Your task to perform on an android device: Open calendar and show me the second week of next month Image 0: 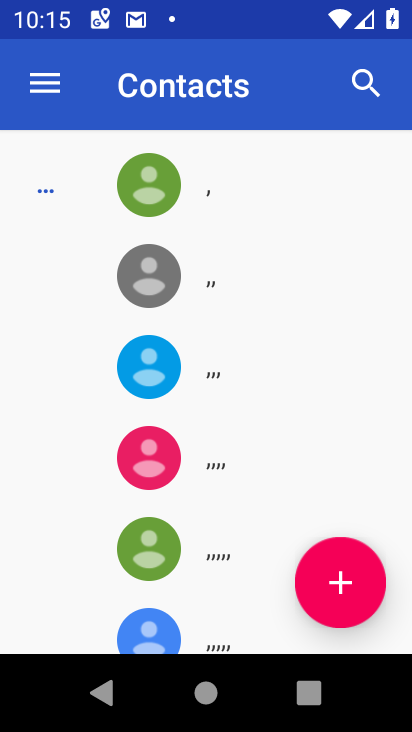
Step 0: press back button
Your task to perform on an android device: Open calendar and show me the second week of next month Image 1: 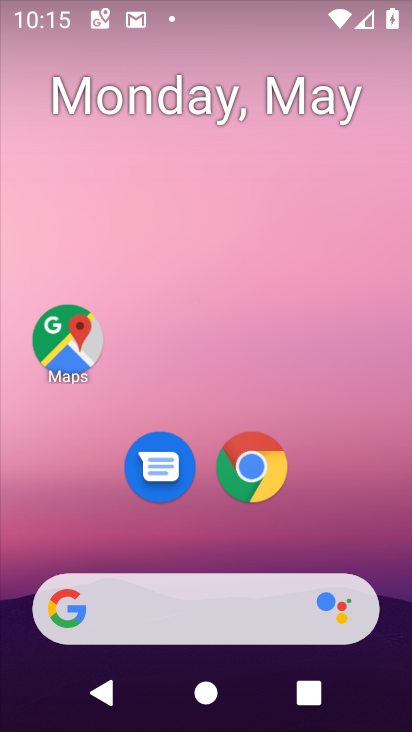
Step 1: drag from (382, 576) to (368, 233)
Your task to perform on an android device: Open calendar and show me the second week of next month Image 2: 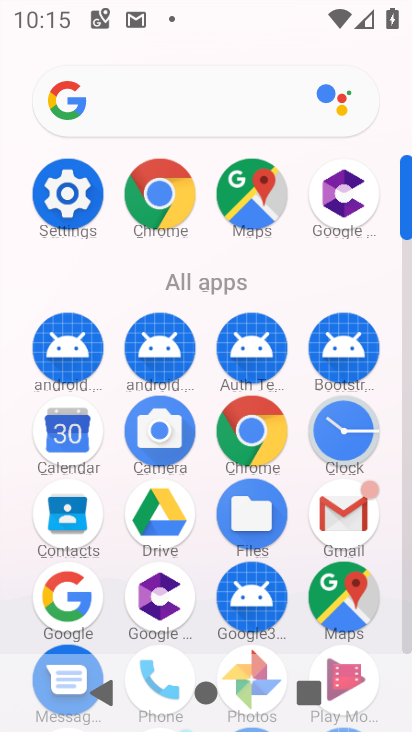
Step 2: click (59, 443)
Your task to perform on an android device: Open calendar and show me the second week of next month Image 3: 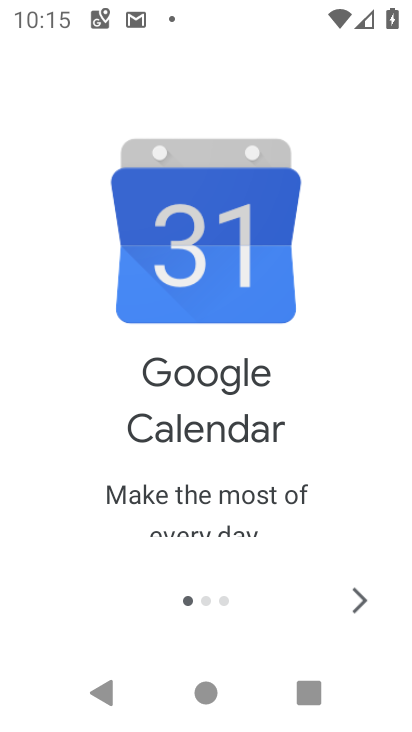
Step 3: click (351, 600)
Your task to perform on an android device: Open calendar and show me the second week of next month Image 4: 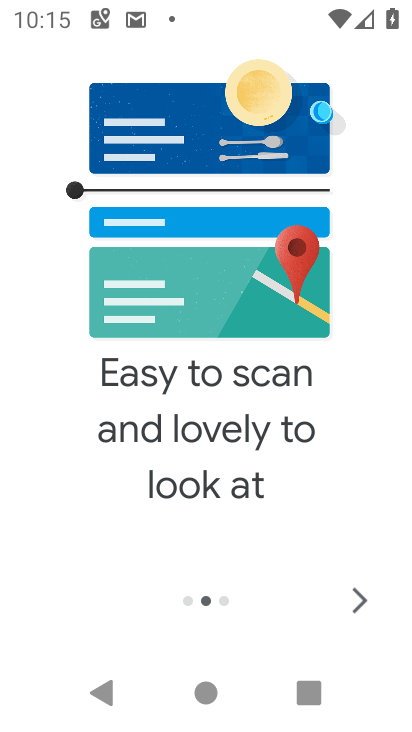
Step 4: click (354, 599)
Your task to perform on an android device: Open calendar and show me the second week of next month Image 5: 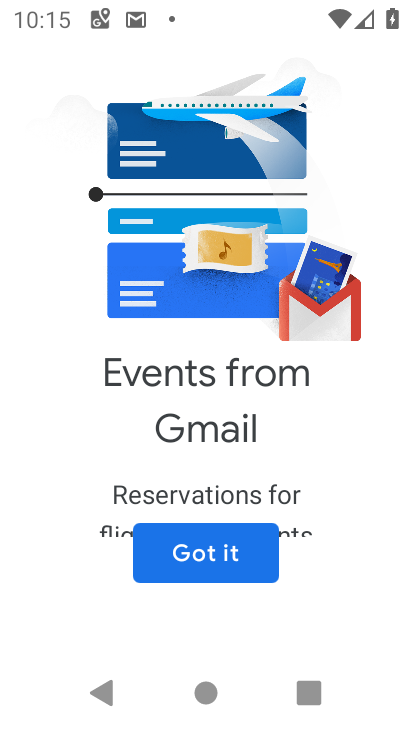
Step 5: click (214, 557)
Your task to perform on an android device: Open calendar and show me the second week of next month Image 6: 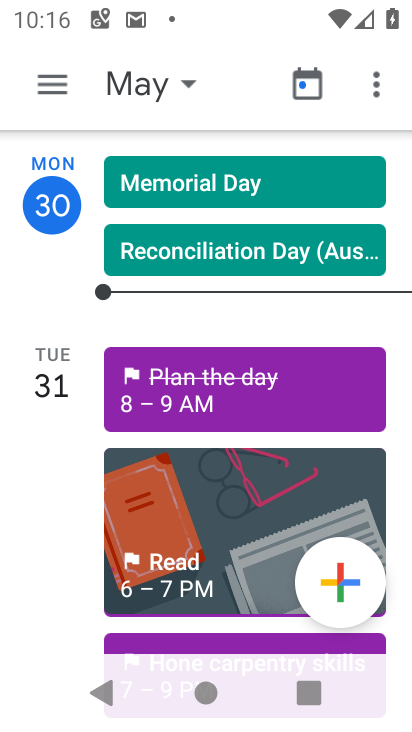
Step 6: click (184, 80)
Your task to perform on an android device: Open calendar and show me the second week of next month Image 7: 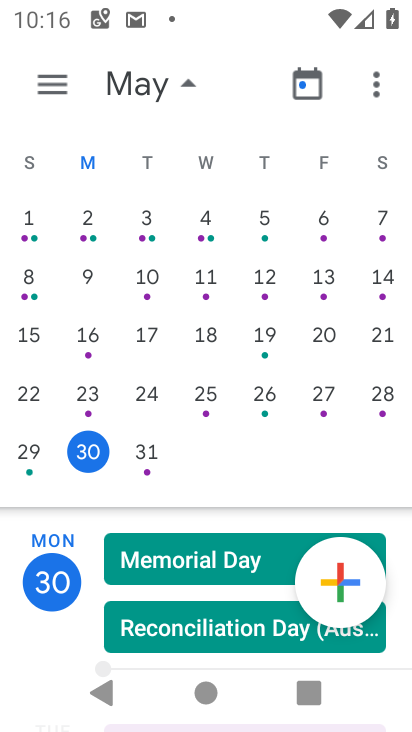
Step 7: press back button
Your task to perform on an android device: Open calendar and show me the second week of next month Image 8: 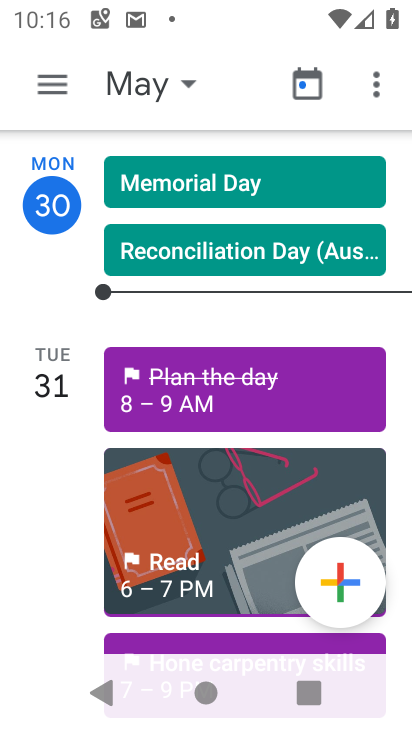
Step 8: press home button
Your task to perform on an android device: Open calendar and show me the second week of next month Image 9: 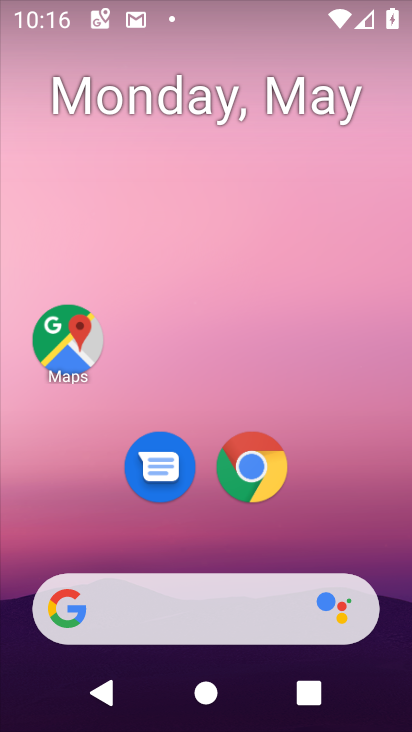
Step 9: drag from (402, 707) to (345, 195)
Your task to perform on an android device: Open calendar and show me the second week of next month Image 10: 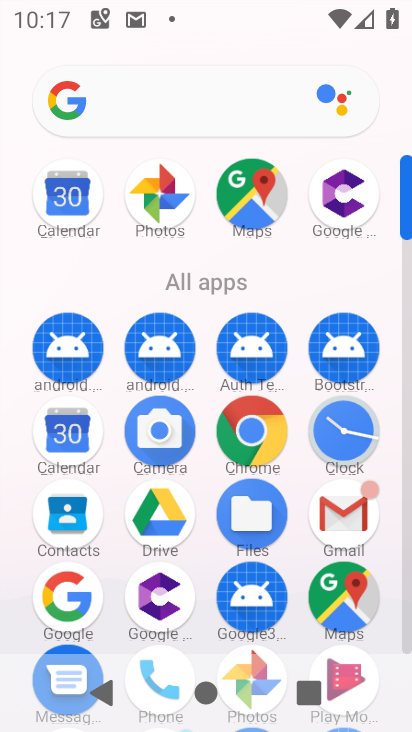
Step 10: click (86, 453)
Your task to perform on an android device: Open calendar and show me the second week of next month Image 11: 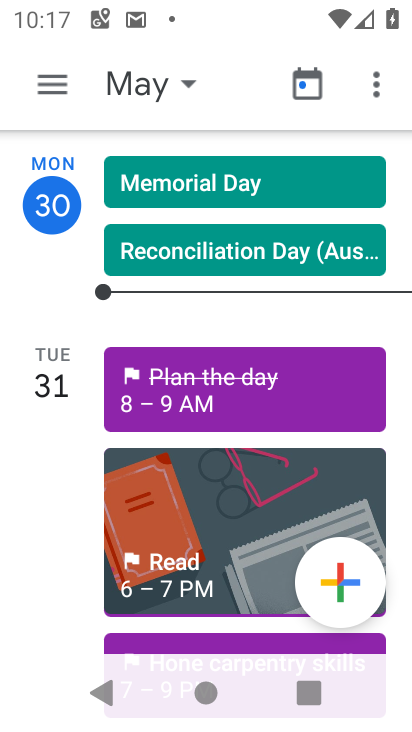
Step 11: click (377, 81)
Your task to perform on an android device: Open calendar and show me the second week of next month Image 12: 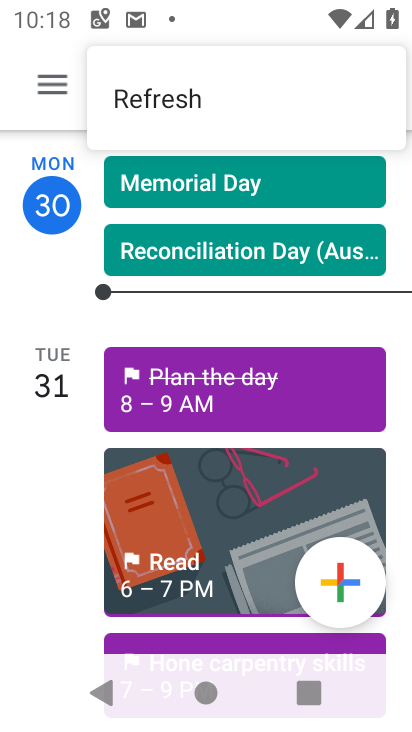
Step 12: click (36, 548)
Your task to perform on an android device: Open calendar and show me the second week of next month Image 13: 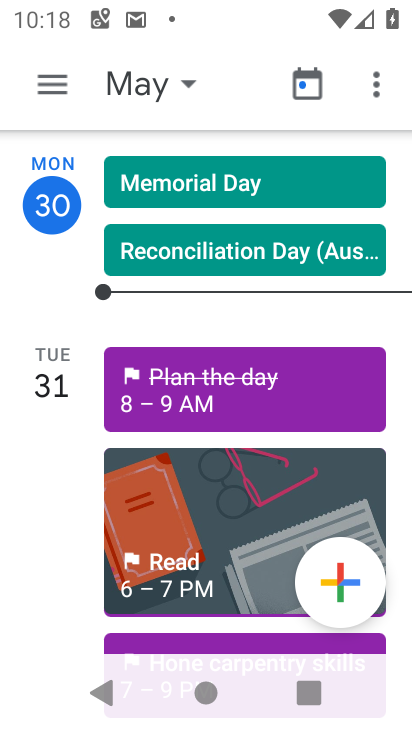
Step 13: click (190, 80)
Your task to perform on an android device: Open calendar and show me the second week of next month Image 14: 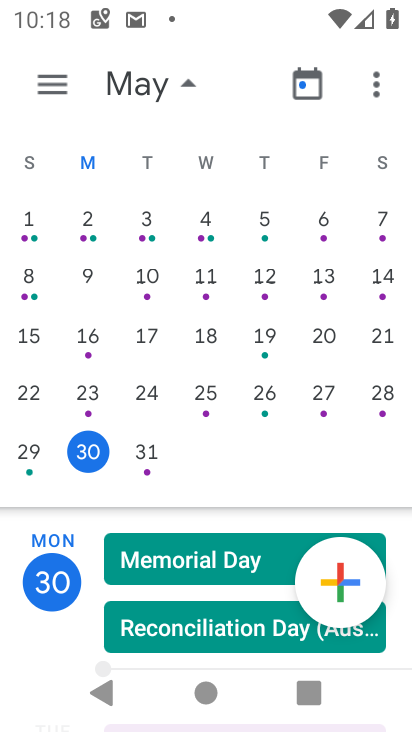
Step 14: drag from (393, 311) to (270, 333)
Your task to perform on an android device: Open calendar and show me the second week of next month Image 15: 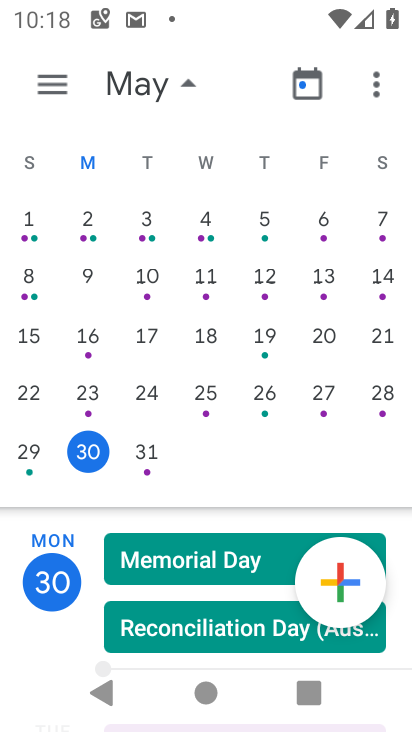
Step 15: click (266, 309)
Your task to perform on an android device: Open calendar and show me the second week of next month Image 16: 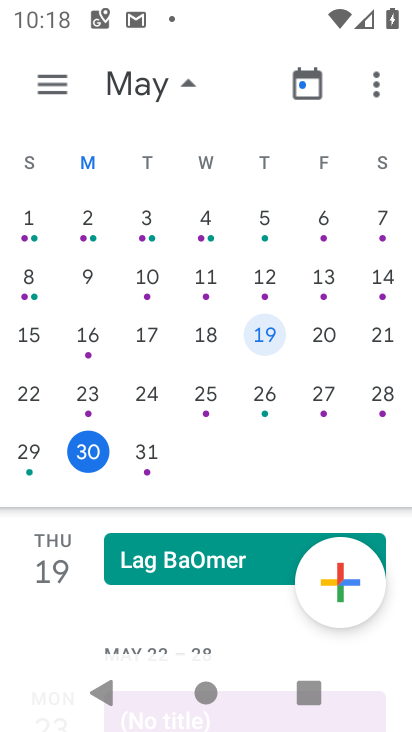
Step 16: drag from (406, 297) to (171, 234)
Your task to perform on an android device: Open calendar and show me the second week of next month Image 17: 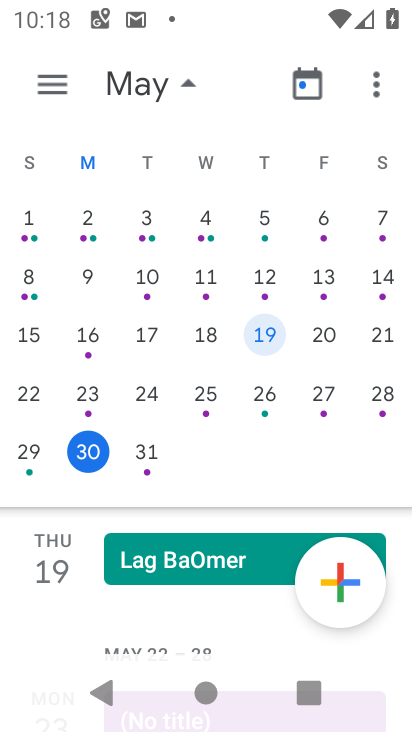
Step 17: drag from (396, 295) to (123, 273)
Your task to perform on an android device: Open calendar and show me the second week of next month Image 18: 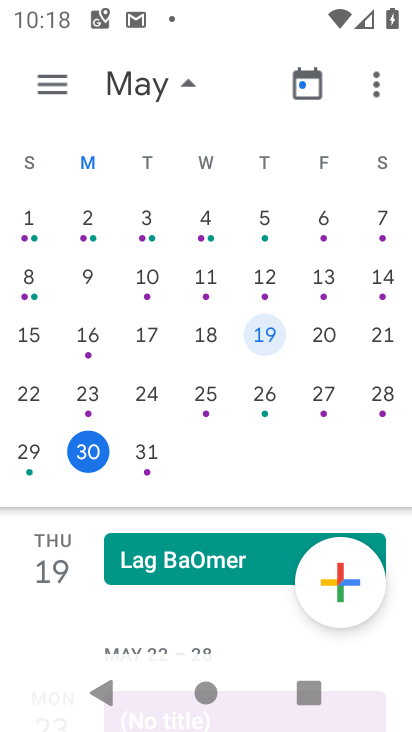
Step 18: click (111, 268)
Your task to perform on an android device: Open calendar and show me the second week of next month Image 19: 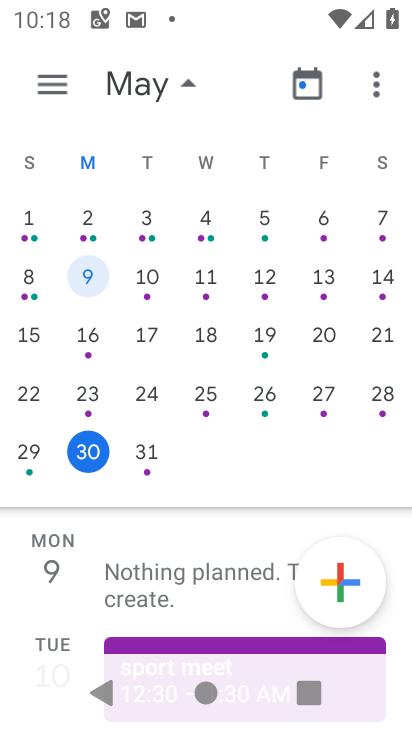
Step 19: drag from (388, 320) to (84, 281)
Your task to perform on an android device: Open calendar and show me the second week of next month Image 20: 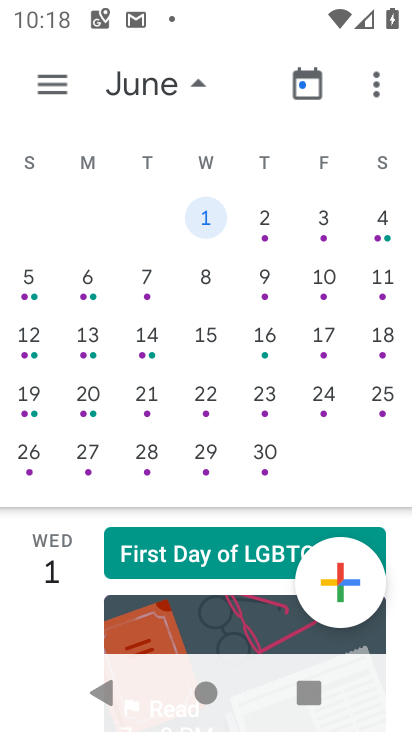
Step 20: click (264, 276)
Your task to perform on an android device: Open calendar and show me the second week of next month Image 21: 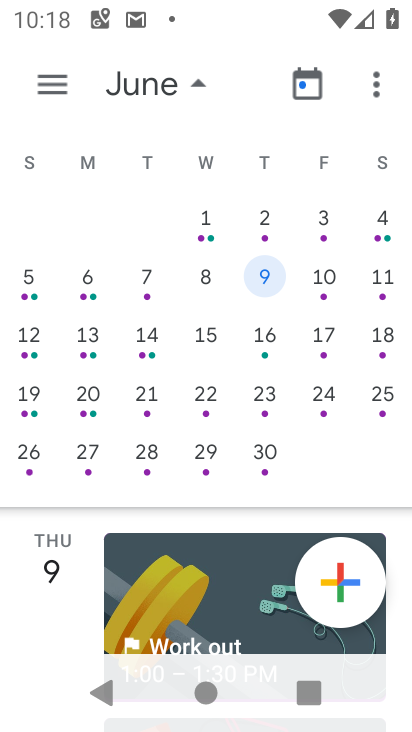
Step 21: task complete